Your task to perform on an android device: change the clock display to digital Image 0: 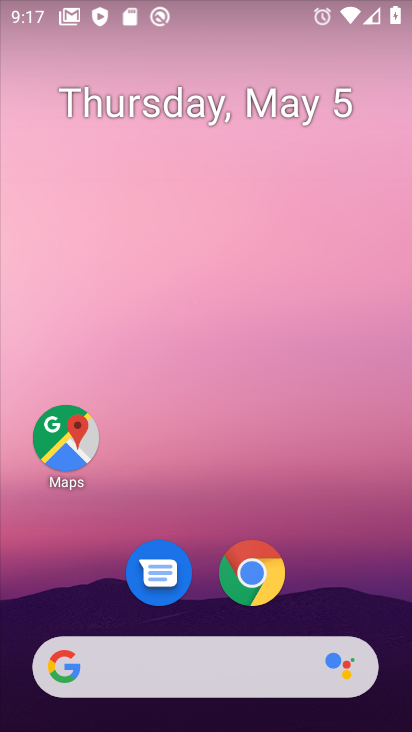
Step 0: drag from (207, 615) to (279, 102)
Your task to perform on an android device: change the clock display to digital Image 1: 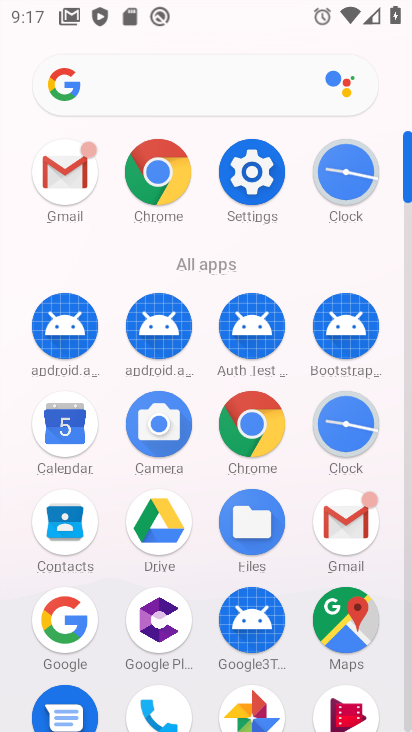
Step 1: click (354, 179)
Your task to perform on an android device: change the clock display to digital Image 2: 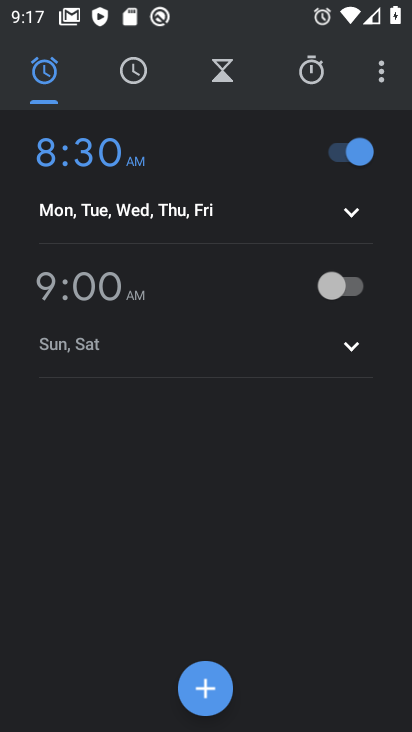
Step 2: click (382, 67)
Your task to perform on an android device: change the clock display to digital Image 3: 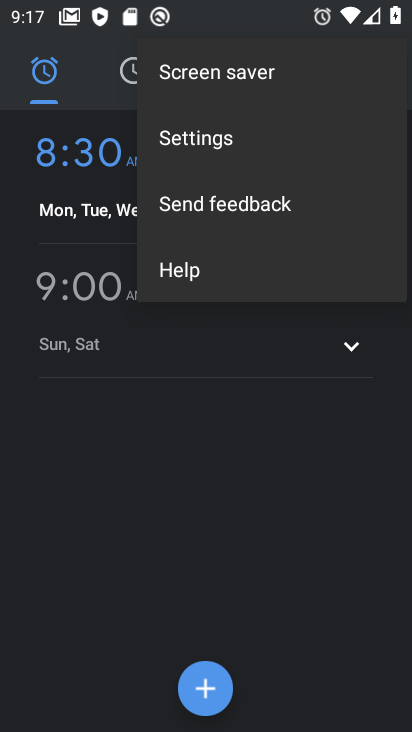
Step 3: click (212, 151)
Your task to perform on an android device: change the clock display to digital Image 4: 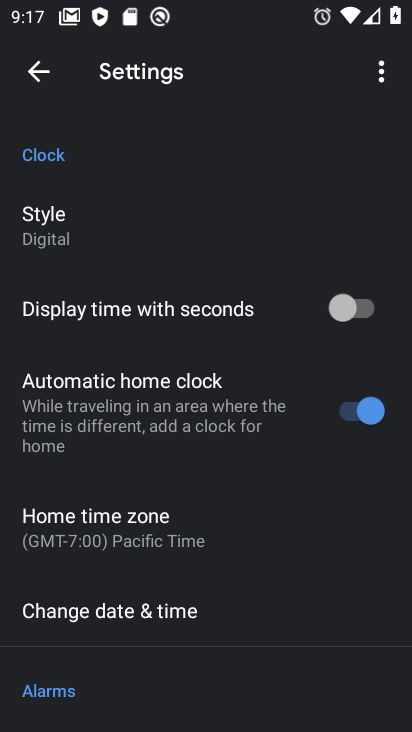
Step 4: task complete